Your task to perform on an android device: Open the Play Movies app and select the watchlist tab. Image 0: 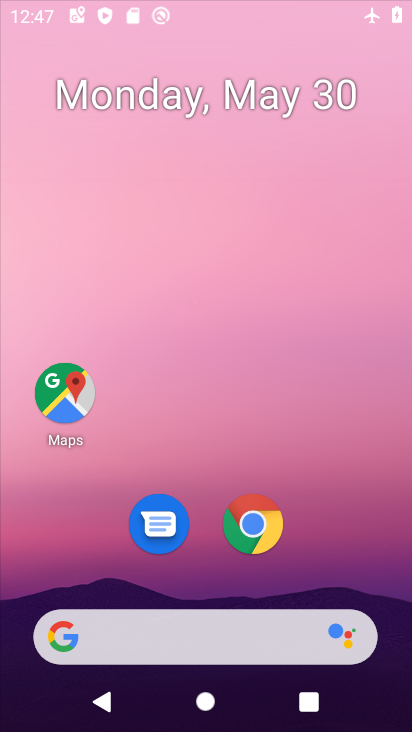
Step 0: click (230, 15)
Your task to perform on an android device: Open the Play Movies app and select the watchlist tab. Image 1: 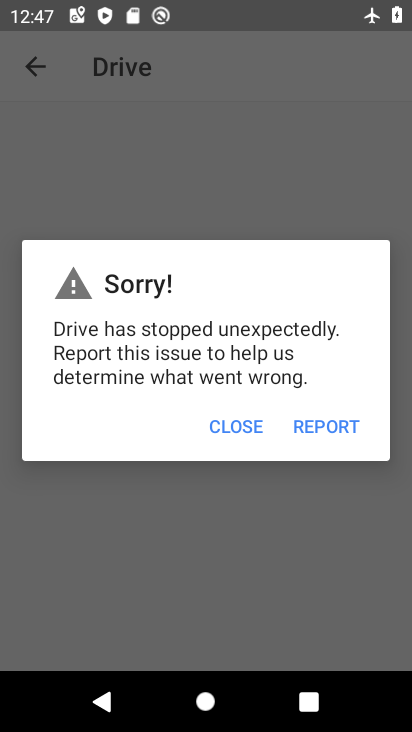
Step 1: press home button
Your task to perform on an android device: Open the Play Movies app and select the watchlist tab. Image 2: 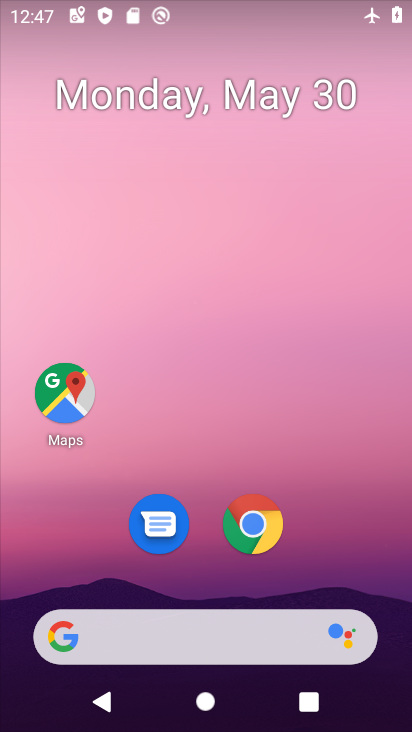
Step 2: drag from (315, 543) to (360, 2)
Your task to perform on an android device: Open the Play Movies app and select the watchlist tab. Image 3: 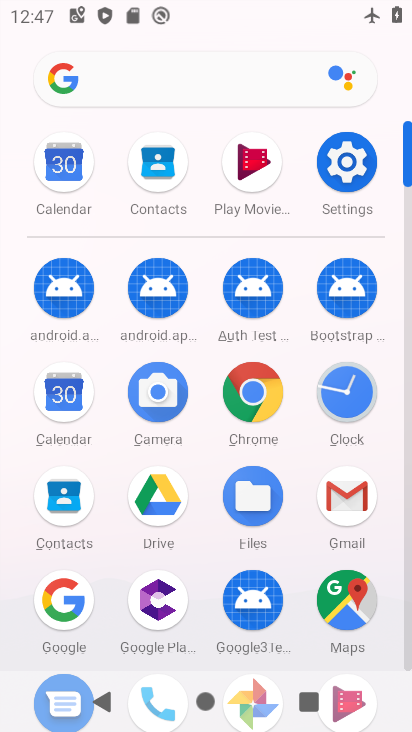
Step 3: drag from (307, 516) to (340, 190)
Your task to perform on an android device: Open the Play Movies app and select the watchlist tab. Image 4: 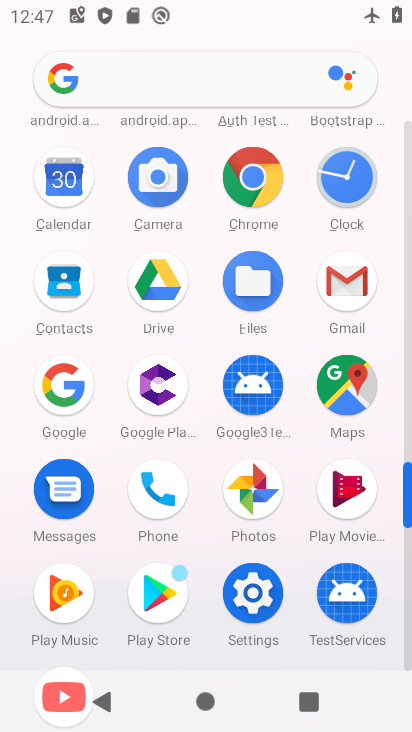
Step 4: click (344, 484)
Your task to perform on an android device: Open the Play Movies app and select the watchlist tab. Image 5: 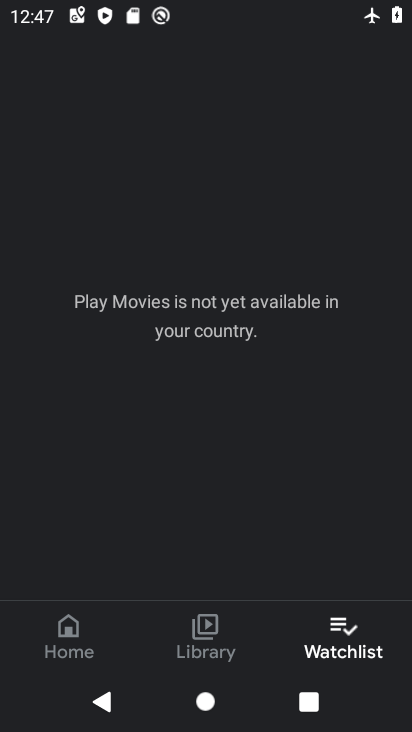
Step 5: click (350, 646)
Your task to perform on an android device: Open the Play Movies app and select the watchlist tab. Image 6: 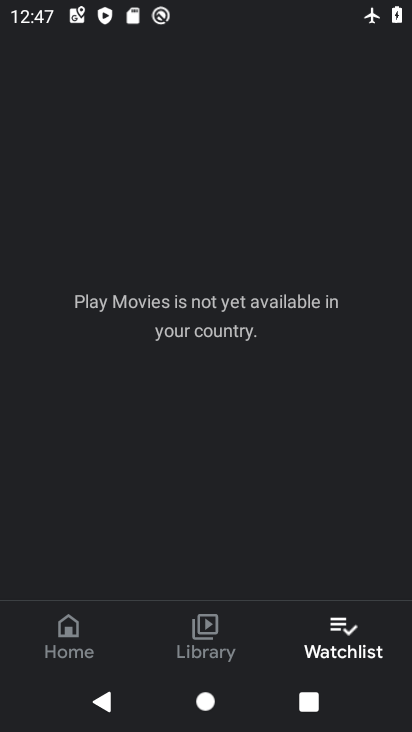
Step 6: task complete